Your task to perform on an android device: delete a single message in the gmail app Image 0: 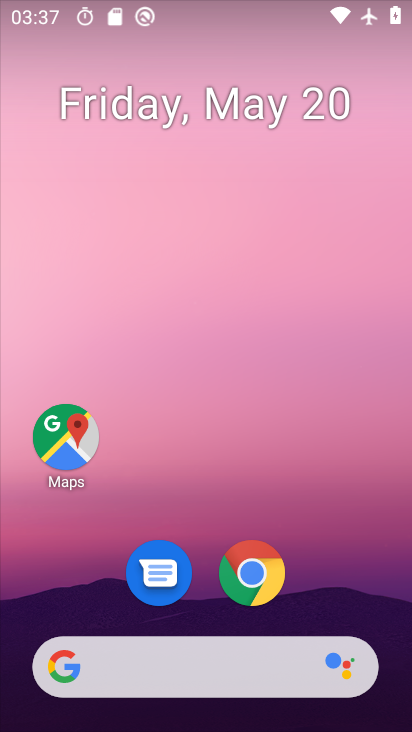
Step 0: drag from (222, 615) to (207, 224)
Your task to perform on an android device: delete a single message in the gmail app Image 1: 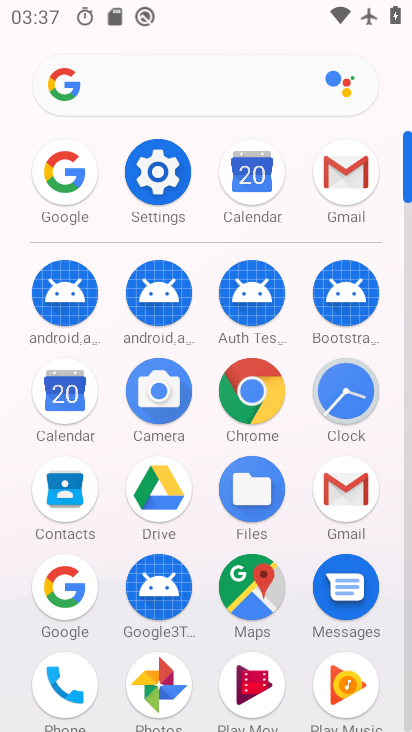
Step 1: click (348, 212)
Your task to perform on an android device: delete a single message in the gmail app Image 2: 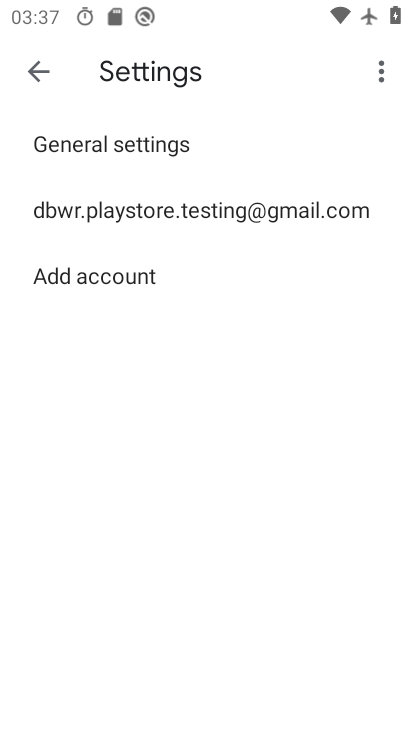
Step 2: click (192, 216)
Your task to perform on an android device: delete a single message in the gmail app Image 3: 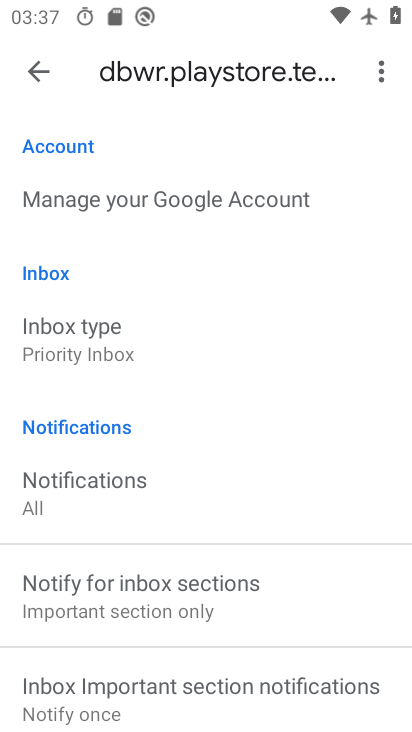
Step 3: click (39, 70)
Your task to perform on an android device: delete a single message in the gmail app Image 4: 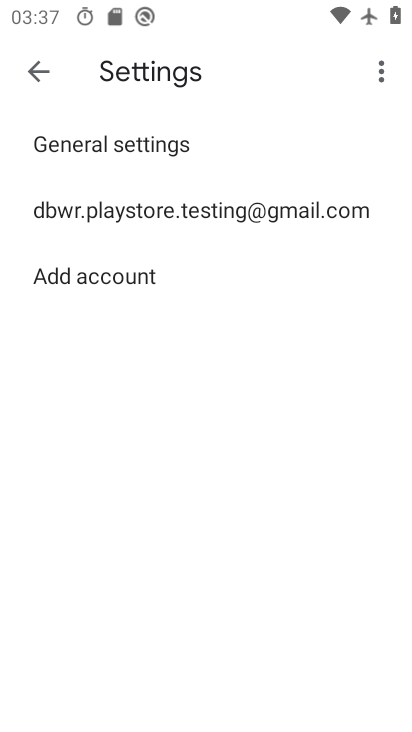
Step 4: click (38, 73)
Your task to perform on an android device: delete a single message in the gmail app Image 5: 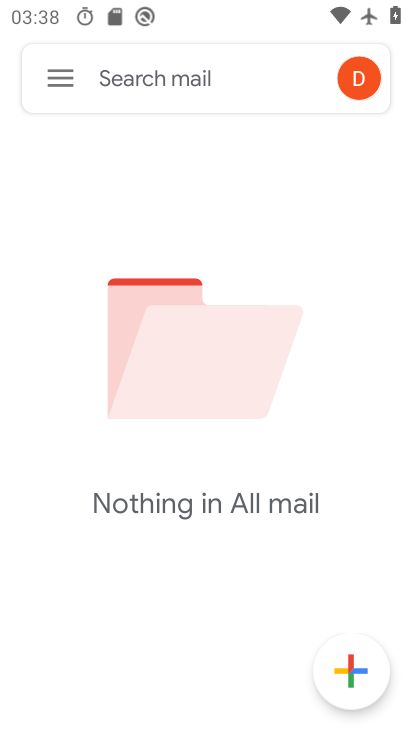
Step 5: task complete